Your task to perform on an android device: Go to battery settings Image 0: 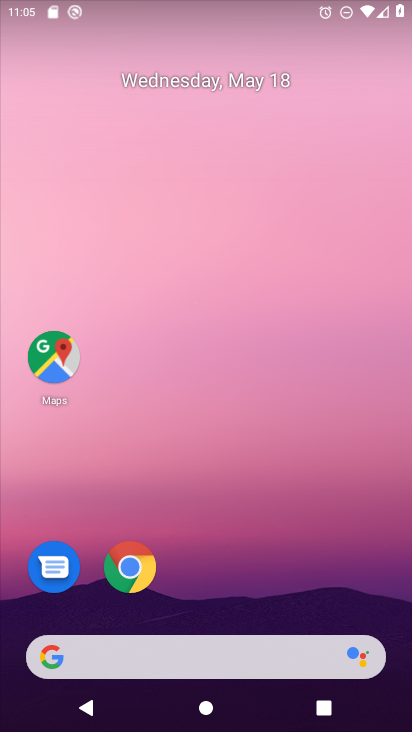
Step 0: drag from (311, 652) to (304, 215)
Your task to perform on an android device: Go to battery settings Image 1: 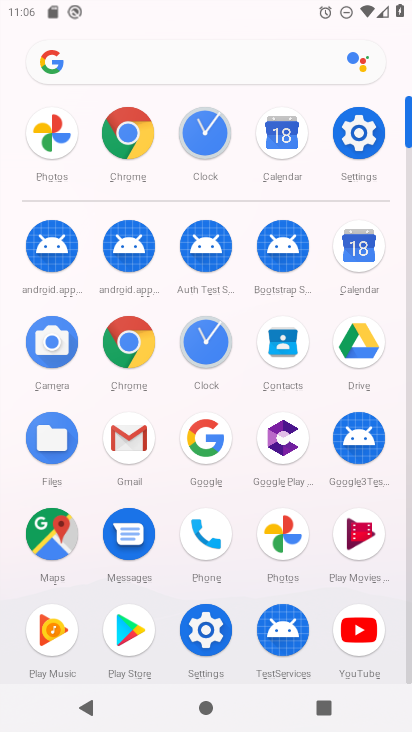
Step 1: click (210, 620)
Your task to perform on an android device: Go to battery settings Image 2: 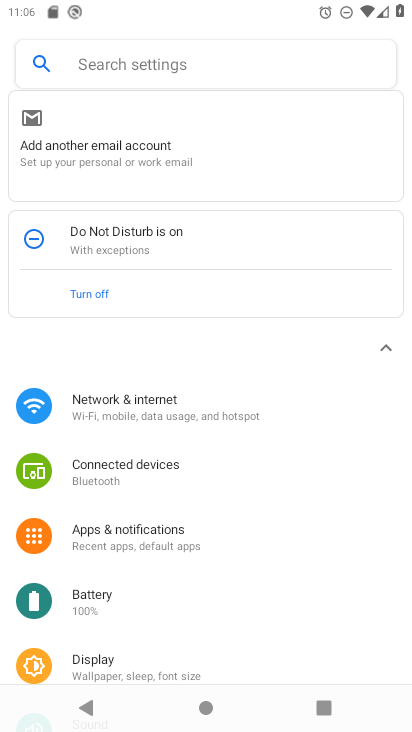
Step 2: click (133, 602)
Your task to perform on an android device: Go to battery settings Image 3: 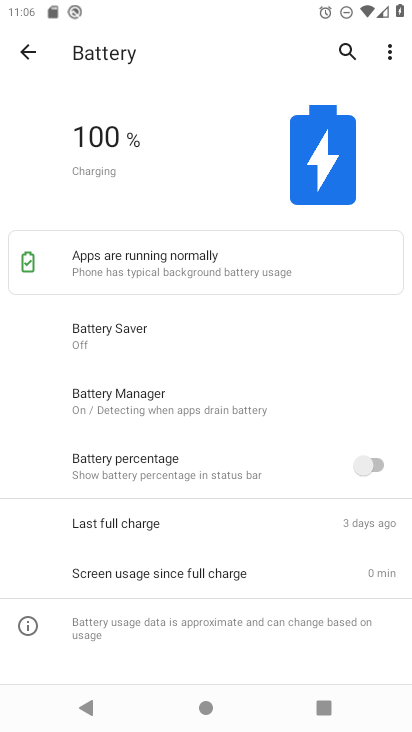
Step 3: task complete